Your task to perform on an android device: Open settings Image 0: 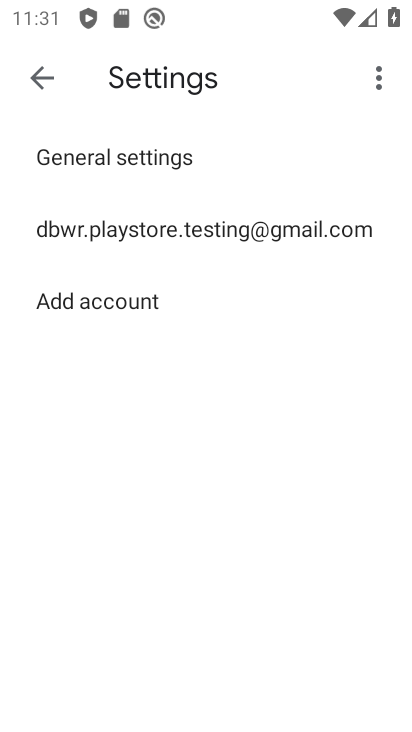
Step 0: press home button
Your task to perform on an android device: Open settings Image 1: 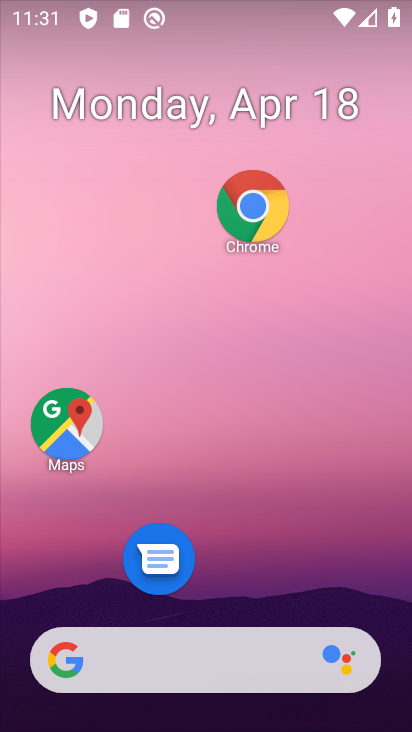
Step 1: drag from (196, 607) to (283, 21)
Your task to perform on an android device: Open settings Image 2: 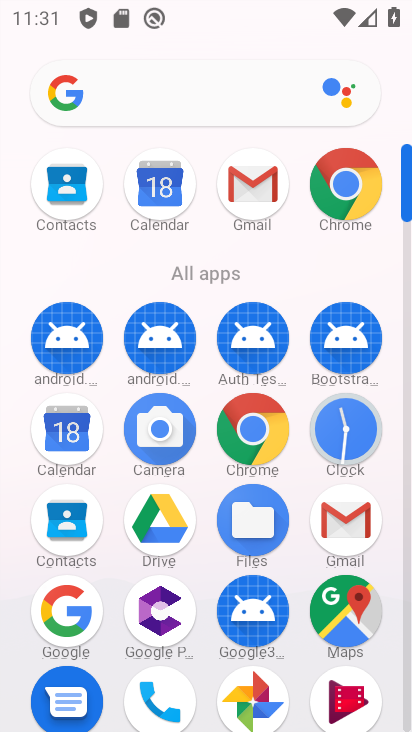
Step 2: drag from (198, 650) to (250, 186)
Your task to perform on an android device: Open settings Image 3: 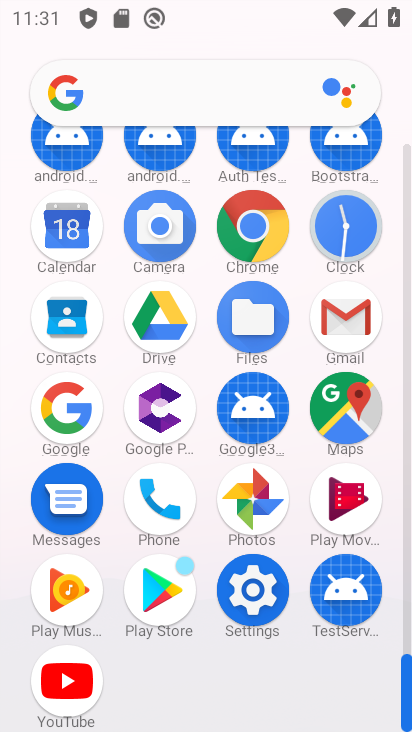
Step 3: click (258, 589)
Your task to perform on an android device: Open settings Image 4: 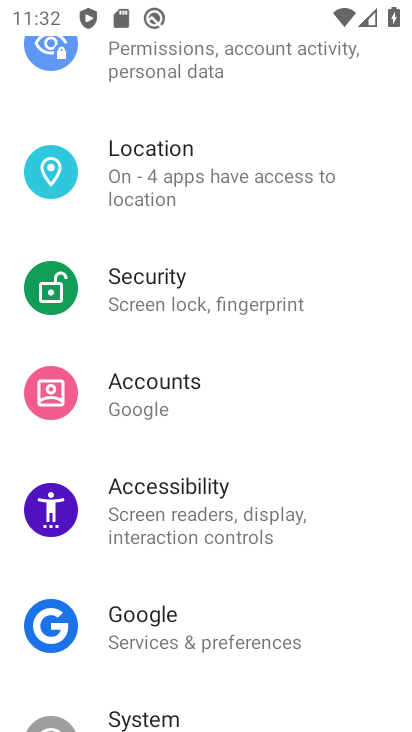
Step 4: task complete